Your task to perform on an android device: create a new album in the google photos Image 0: 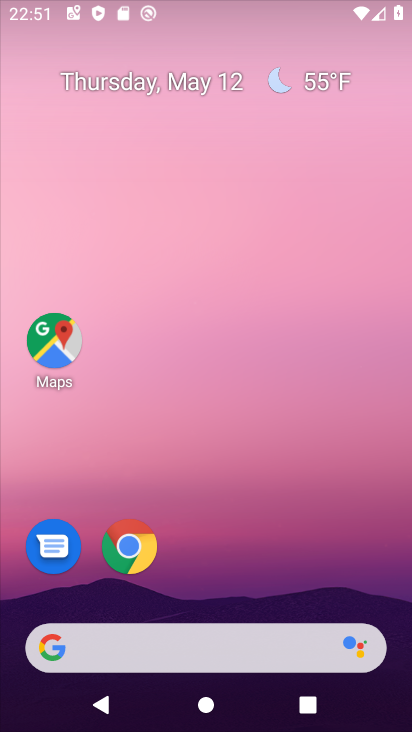
Step 0: press home button
Your task to perform on an android device: create a new album in the google photos Image 1: 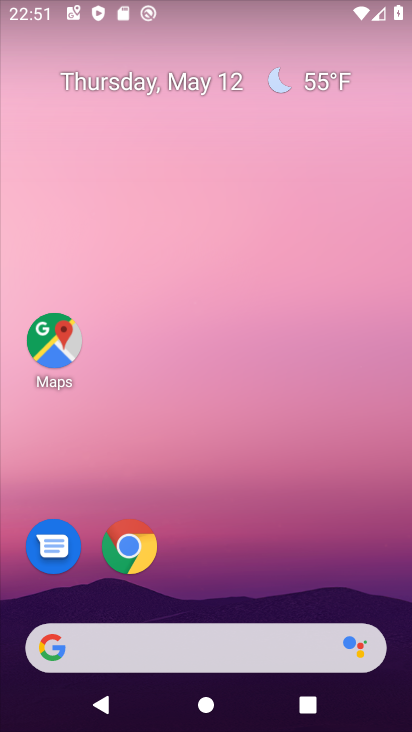
Step 1: drag from (170, 612) to (197, 276)
Your task to perform on an android device: create a new album in the google photos Image 2: 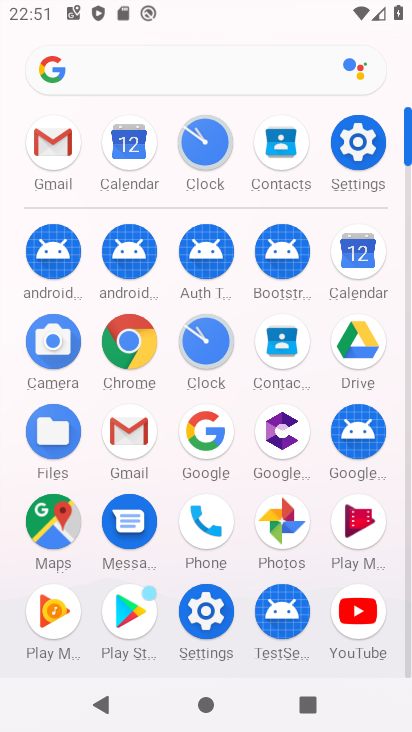
Step 2: click (285, 525)
Your task to perform on an android device: create a new album in the google photos Image 3: 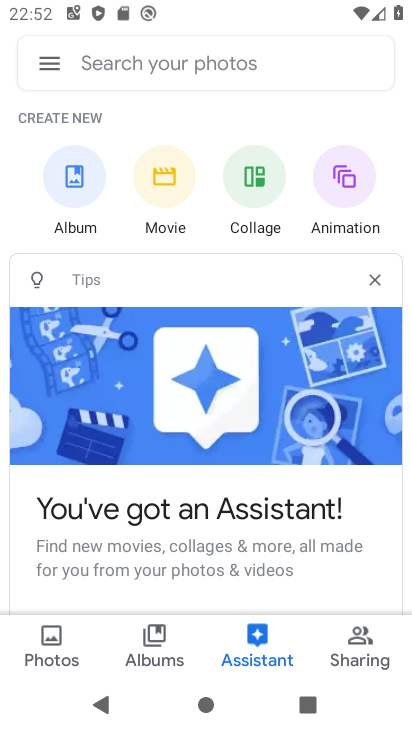
Step 3: click (69, 169)
Your task to perform on an android device: create a new album in the google photos Image 4: 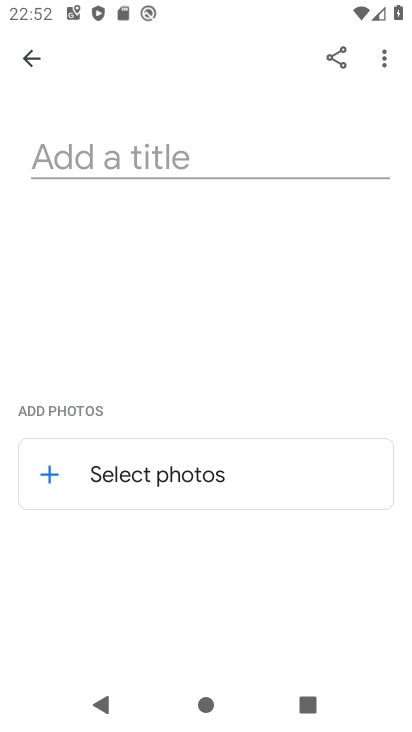
Step 4: click (71, 138)
Your task to perform on an android device: create a new album in the google photos Image 5: 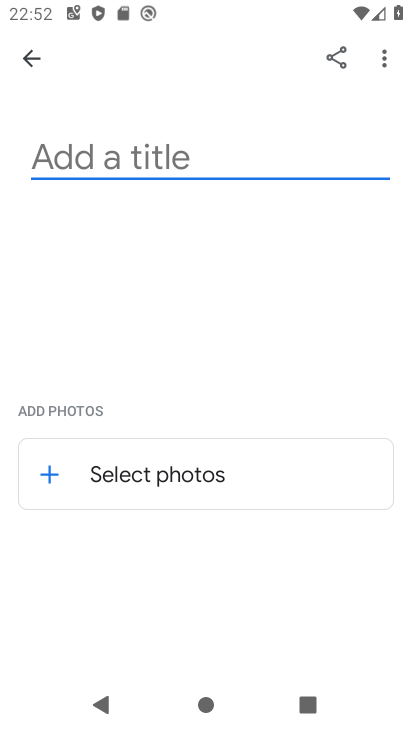
Step 5: click (92, 155)
Your task to perform on an android device: create a new album in the google photos Image 6: 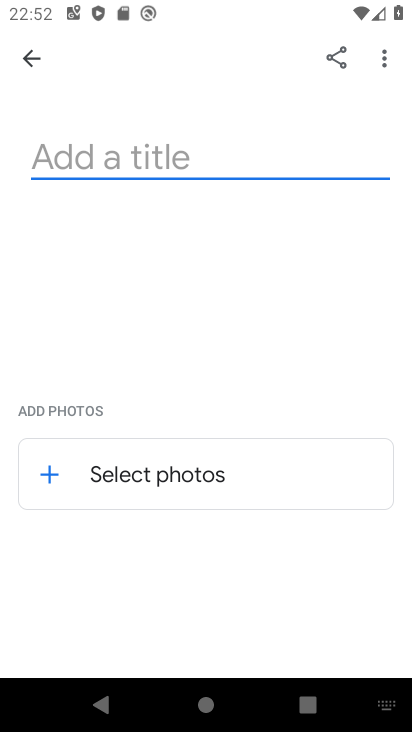
Step 6: type "bcdbggv"
Your task to perform on an android device: create a new album in the google photos Image 7: 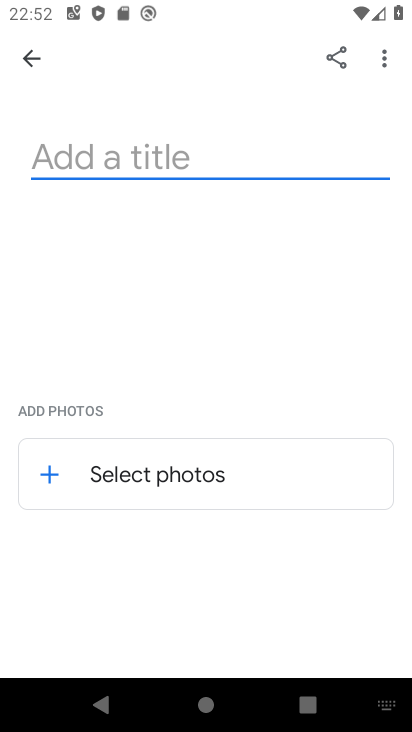
Step 7: click (164, 480)
Your task to perform on an android device: create a new album in the google photos Image 8: 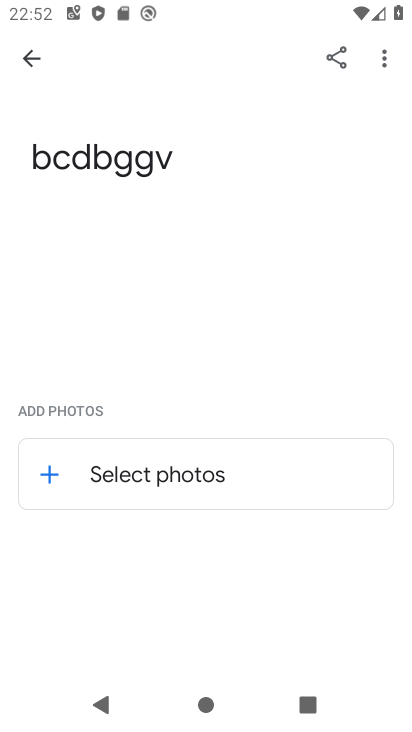
Step 8: click (80, 476)
Your task to perform on an android device: create a new album in the google photos Image 9: 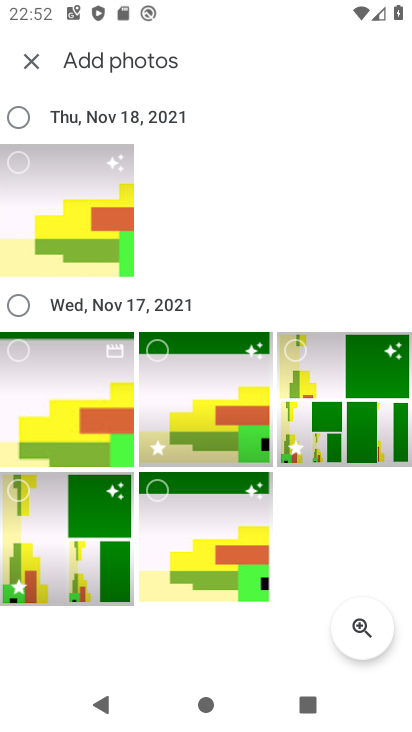
Step 9: click (18, 162)
Your task to perform on an android device: create a new album in the google photos Image 10: 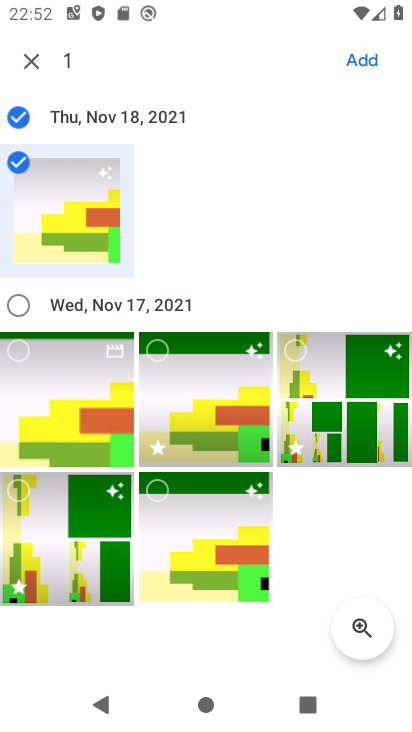
Step 10: click (357, 60)
Your task to perform on an android device: create a new album in the google photos Image 11: 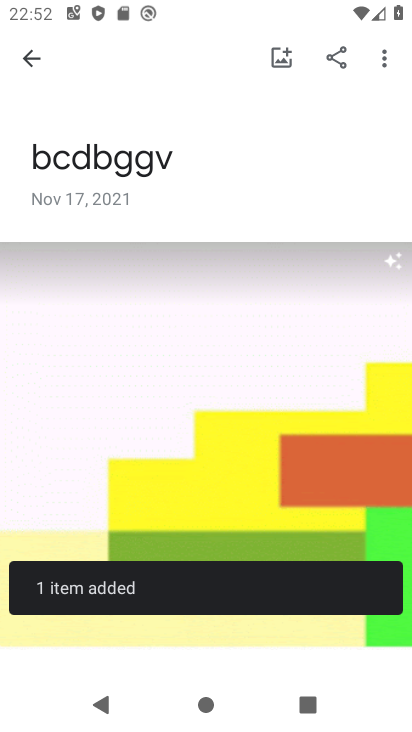
Step 11: task complete